Your task to perform on an android device: Go to location settings Image 0: 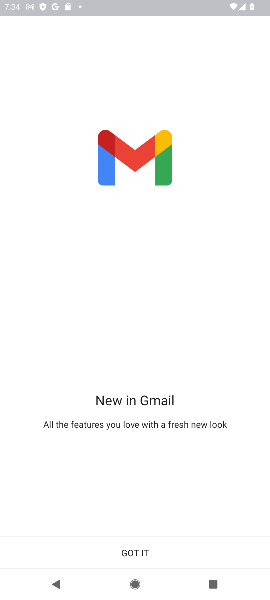
Step 0: press home button
Your task to perform on an android device: Go to location settings Image 1: 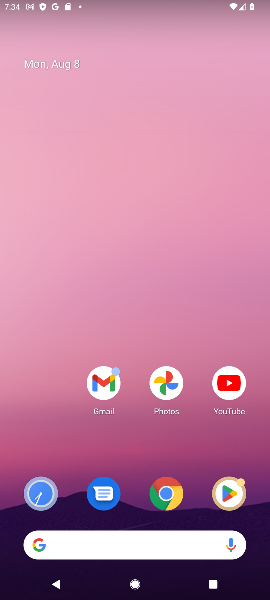
Step 1: drag from (112, 548) to (115, 8)
Your task to perform on an android device: Go to location settings Image 2: 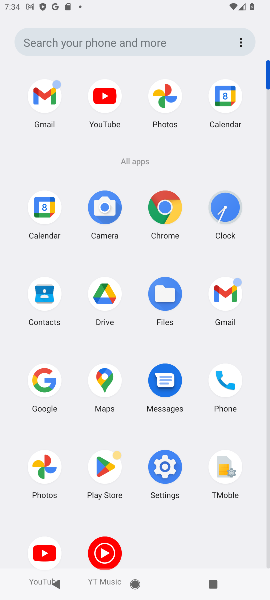
Step 2: click (157, 475)
Your task to perform on an android device: Go to location settings Image 3: 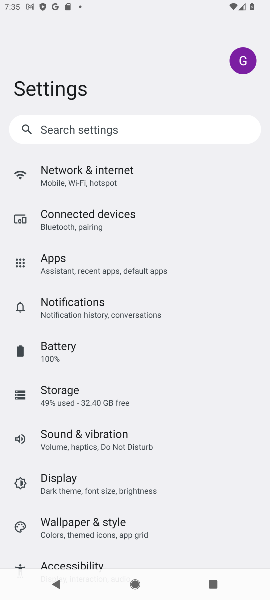
Step 3: drag from (126, 526) to (122, 223)
Your task to perform on an android device: Go to location settings Image 4: 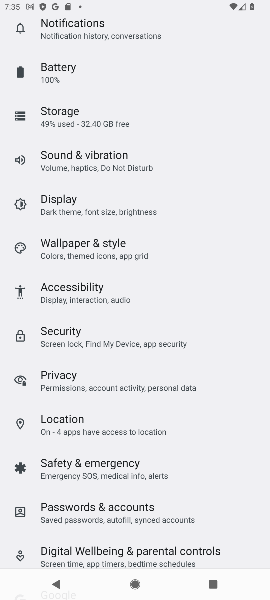
Step 4: click (72, 420)
Your task to perform on an android device: Go to location settings Image 5: 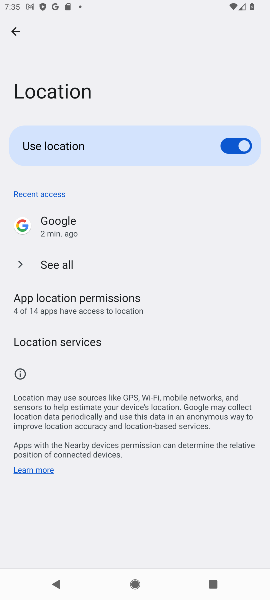
Step 5: task complete